Your task to perform on an android device: turn off notifications settings in the gmail app Image 0: 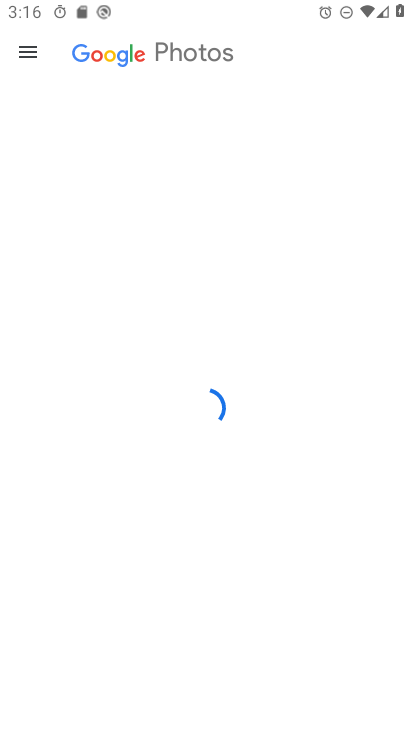
Step 0: press home button
Your task to perform on an android device: turn off notifications settings in the gmail app Image 1: 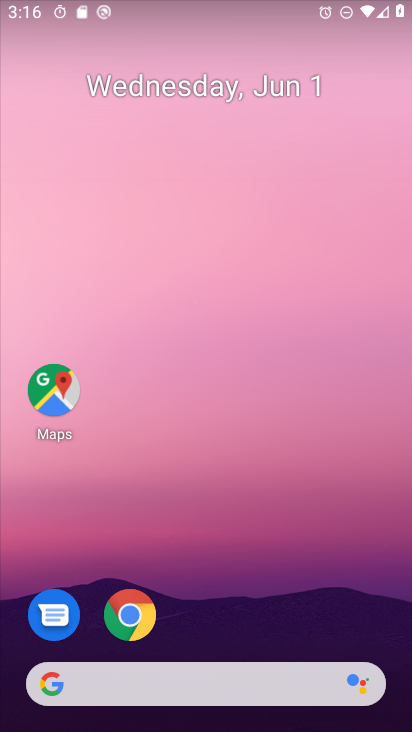
Step 1: drag from (258, 605) to (277, 61)
Your task to perform on an android device: turn off notifications settings in the gmail app Image 2: 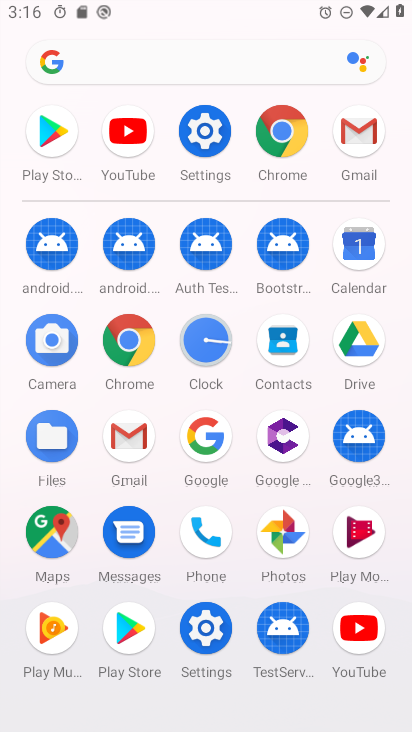
Step 2: click (117, 431)
Your task to perform on an android device: turn off notifications settings in the gmail app Image 3: 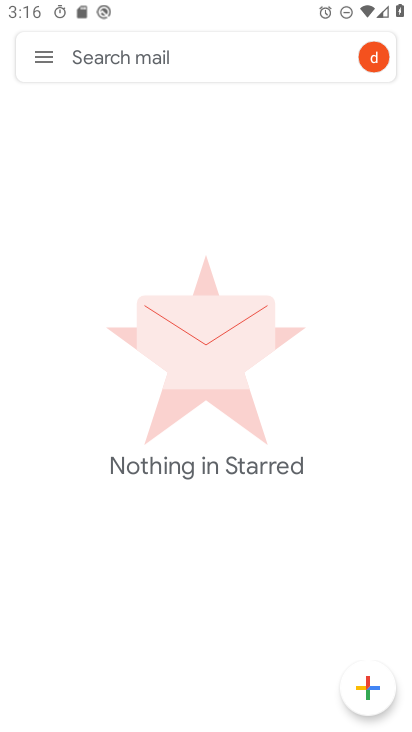
Step 3: click (39, 59)
Your task to perform on an android device: turn off notifications settings in the gmail app Image 4: 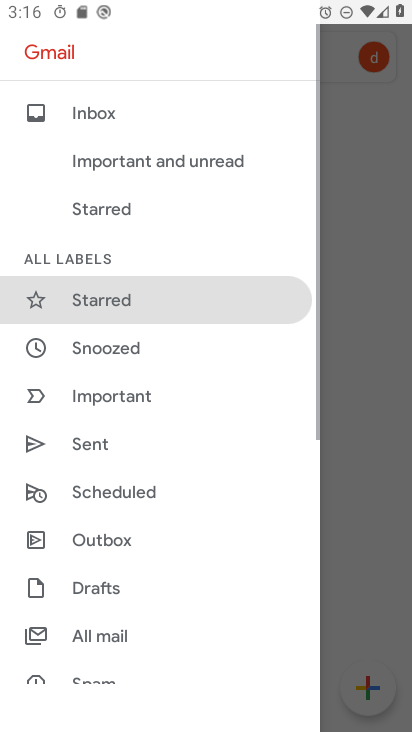
Step 4: drag from (148, 666) to (180, 404)
Your task to perform on an android device: turn off notifications settings in the gmail app Image 5: 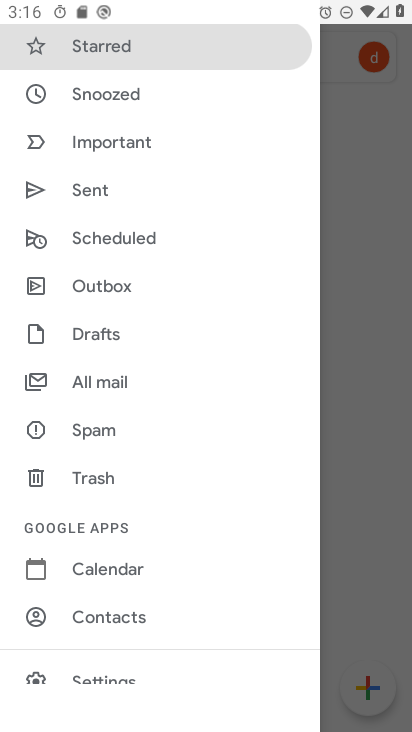
Step 5: click (164, 674)
Your task to perform on an android device: turn off notifications settings in the gmail app Image 6: 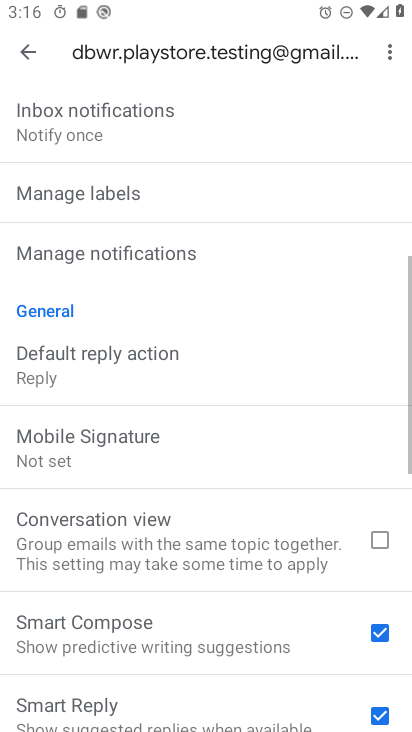
Step 6: drag from (177, 618) to (181, 453)
Your task to perform on an android device: turn off notifications settings in the gmail app Image 7: 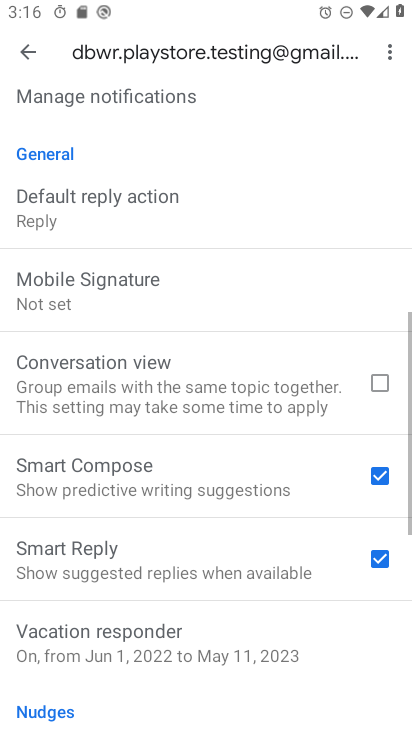
Step 7: drag from (181, 453) to (191, 635)
Your task to perform on an android device: turn off notifications settings in the gmail app Image 8: 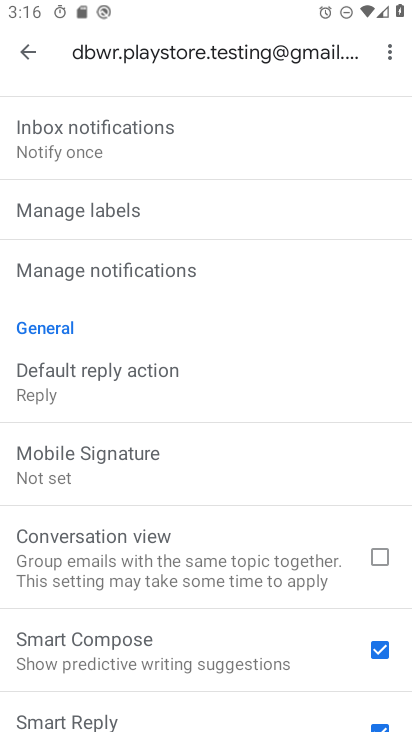
Step 8: click (195, 284)
Your task to perform on an android device: turn off notifications settings in the gmail app Image 9: 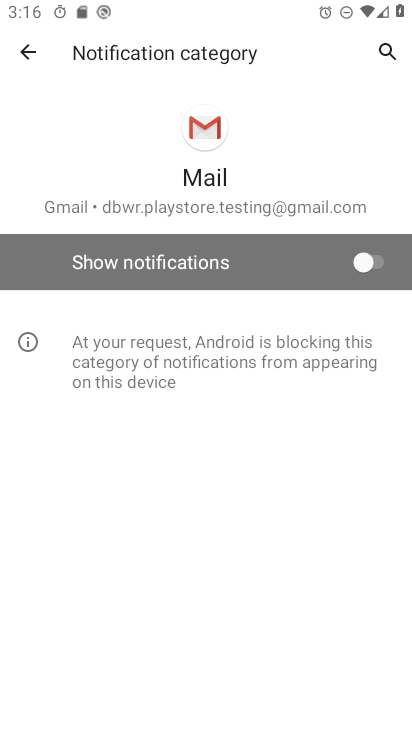
Step 9: task complete